Your task to perform on an android device: Do I have any events this weekend? Image 0: 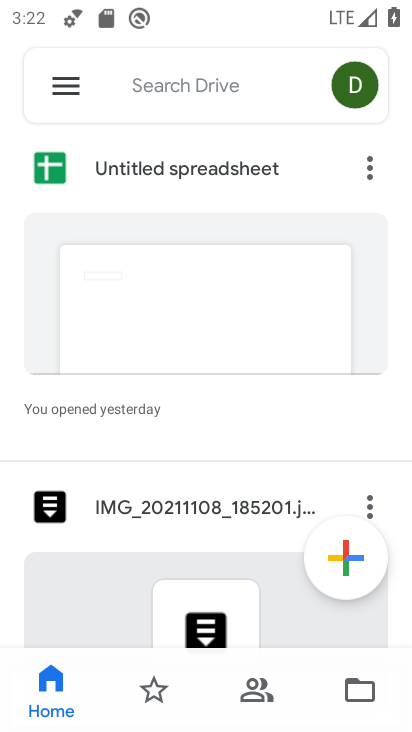
Step 0: press home button
Your task to perform on an android device: Do I have any events this weekend? Image 1: 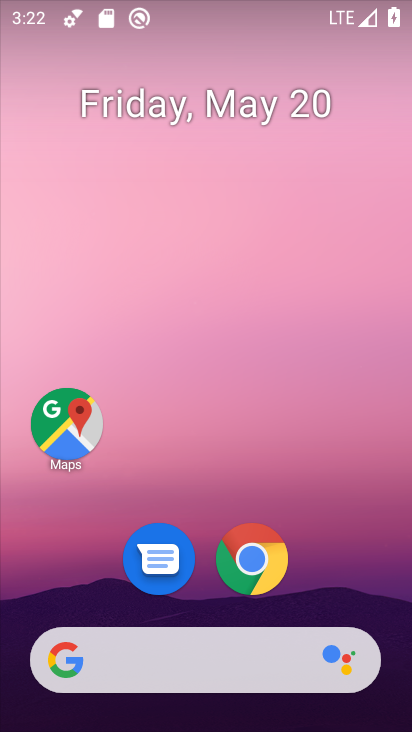
Step 1: drag from (327, 535) to (307, 76)
Your task to perform on an android device: Do I have any events this weekend? Image 2: 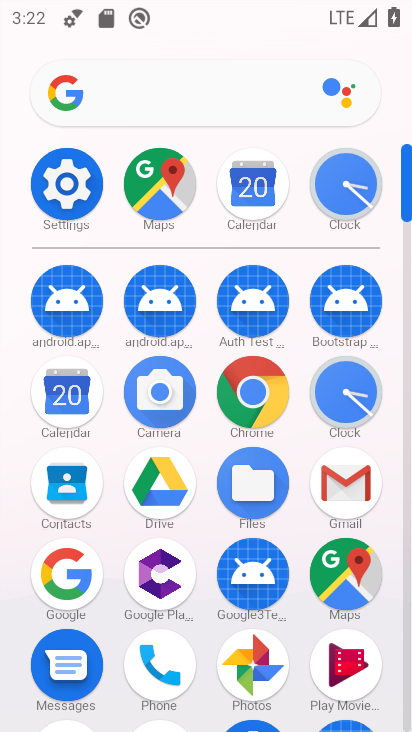
Step 2: click (244, 189)
Your task to perform on an android device: Do I have any events this weekend? Image 3: 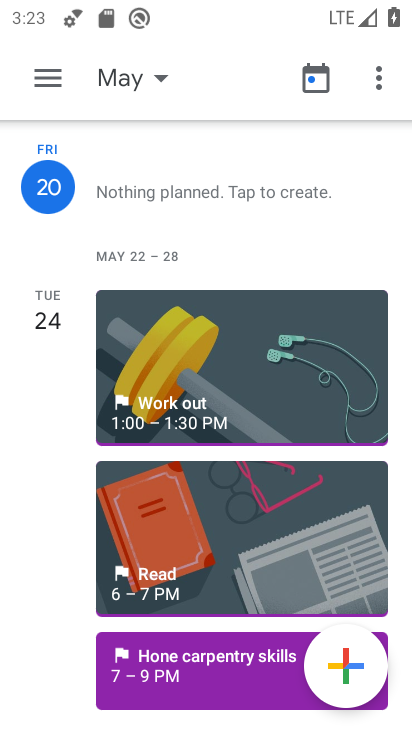
Step 3: click (46, 71)
Your task to perform on an android device: Do I have any events this weekend? Image 4: 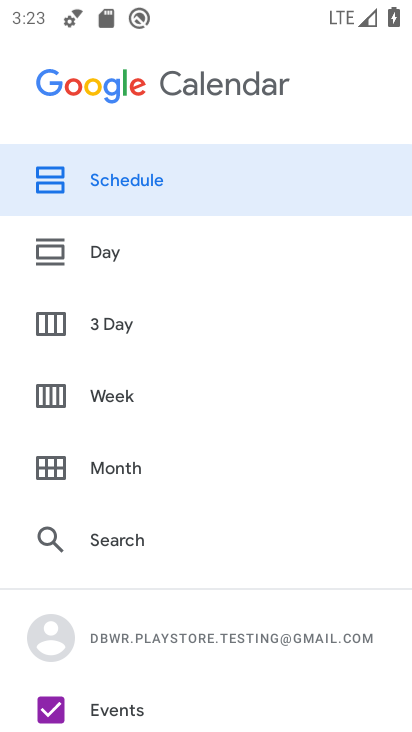
Step 4: click (46, 393)
Your task to perform on an android device: Do I have any events this weekend? Image 5: 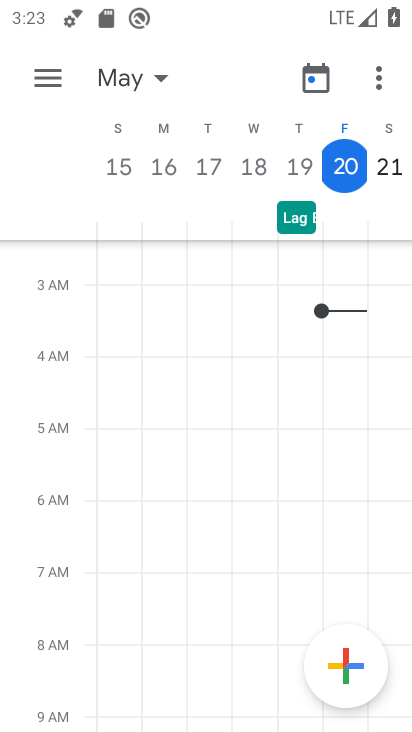
Step 5: task complete